Your task to perform on an android device: change the clock display to digital Image 0: 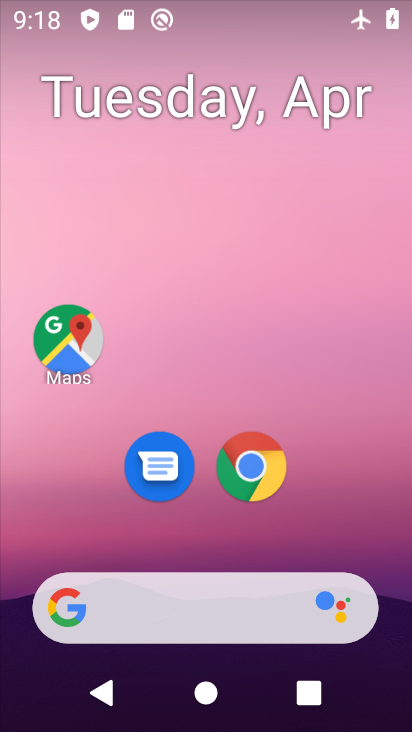
Step 0: drag from (352, 539) to (292, 242)
Your task to perform on an android device: change the clock display to digital Image 1: 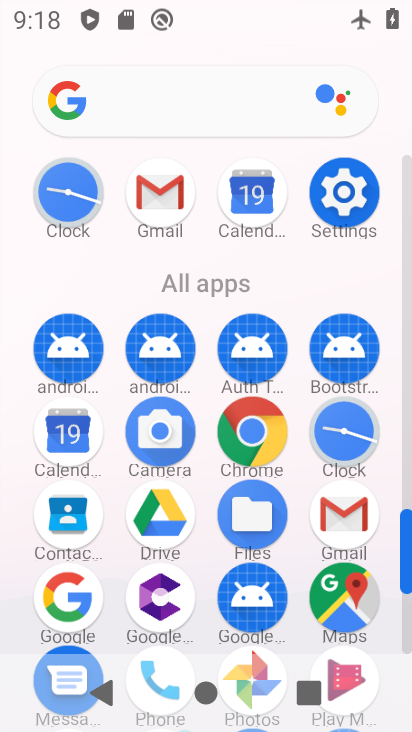
Step 1: click (345, 435)
Your task to perform on an android device: change the clock display to digital Image 2: 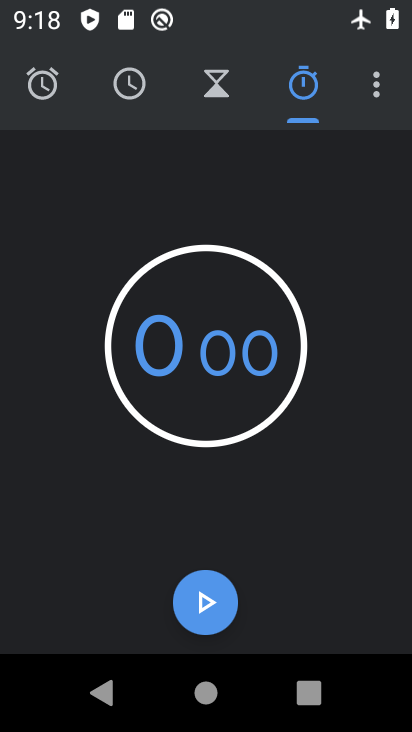
Step 2: click (369, 75)
Your task to perform on an android device: change the clock display to digital Image 3: 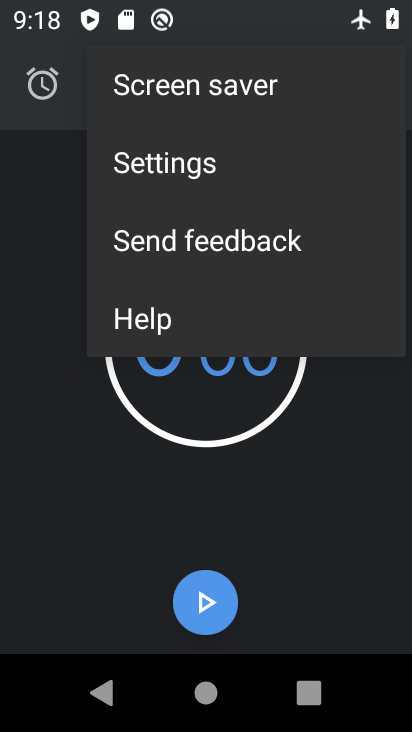
Step 3: click (175, 174)
Your task to perform on an android device: change the clock display to digital Image 4: 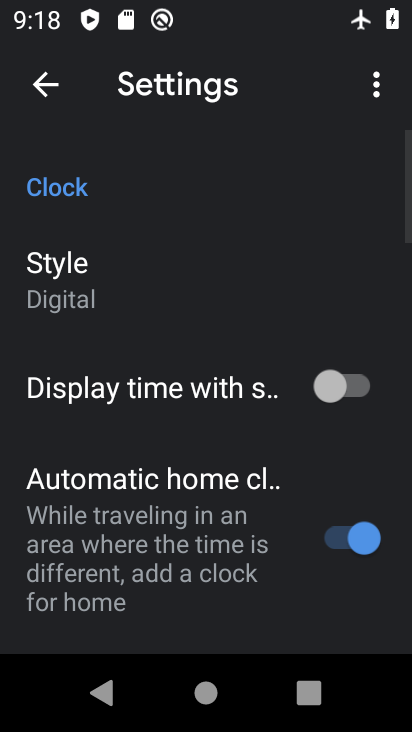
Step 4: click (129, 304)
Your task to perform on an android device: change the clock display to digital Image 5: 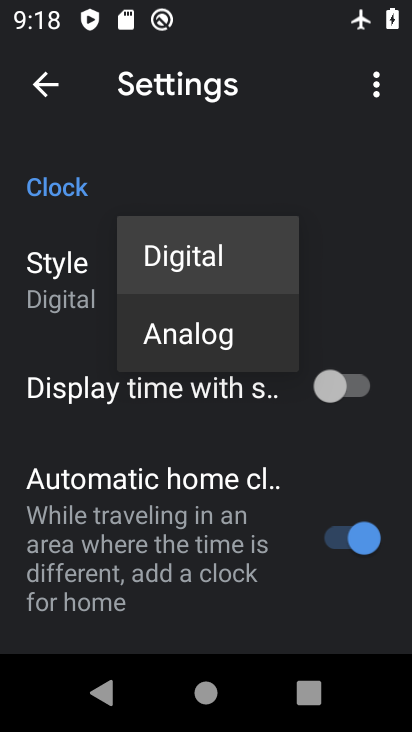
Step 5: click (199, 263)
Your task to perform on an android device: change the clock display to digital Image 6: 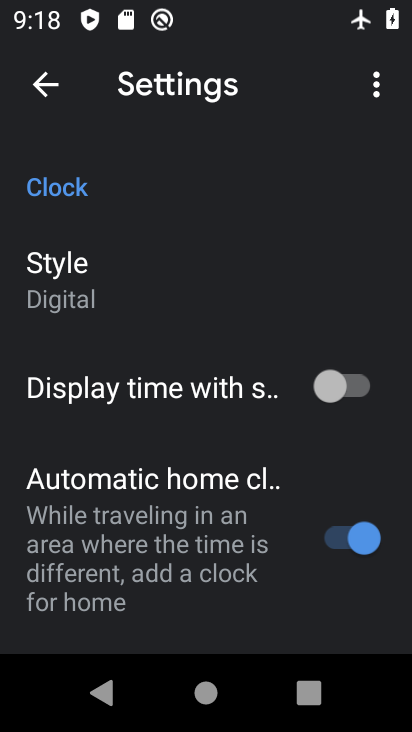
Step 6: task complete